Your task to perform on an android device: Go to Maps Image 0: 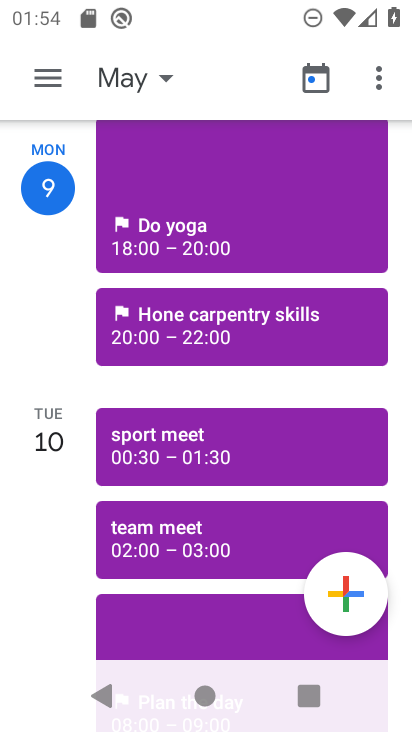
Step 0: press home button
Your task to perform on an android device: Go to Maps Image 1: 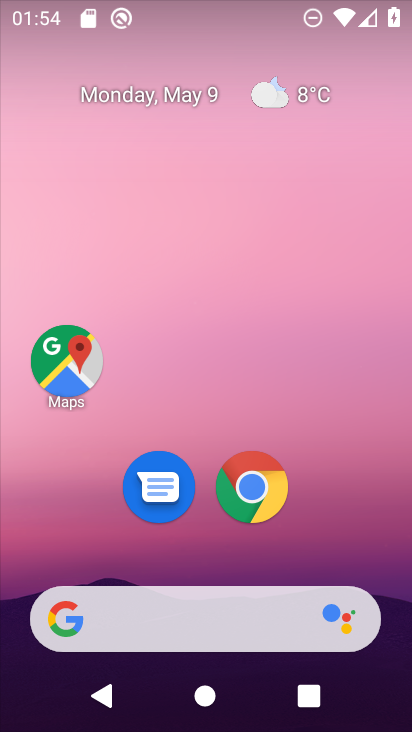
Step 1: click (47, 355)
Your task to perform on an android device: Go to Maps Image 2: 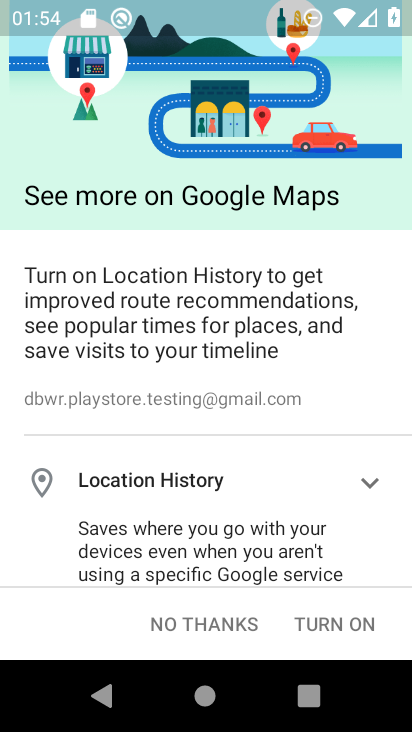
Step 2: click (55, 366)
Your task to perform on an android device: Go to Maps Image 3: 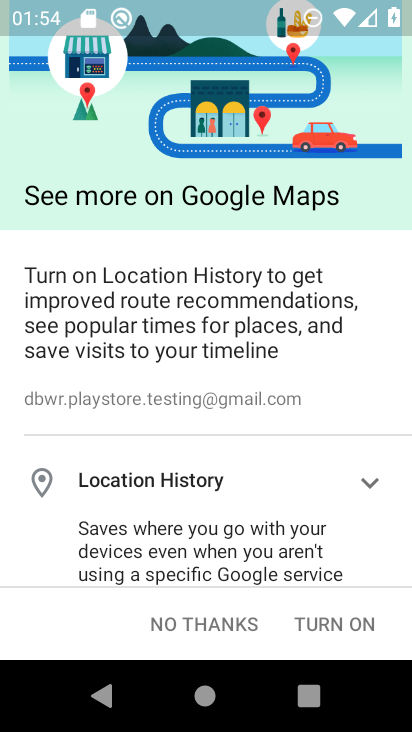
Step 3: click (244, 623)
Your task to perform on an android device: Go to Maps Image 4: 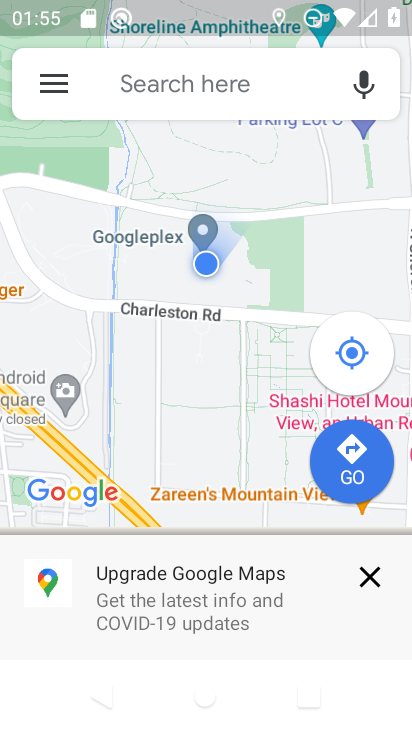
Step 4: click (372, 581)
Your task to perform on an android device: Go to Maps Image 5: 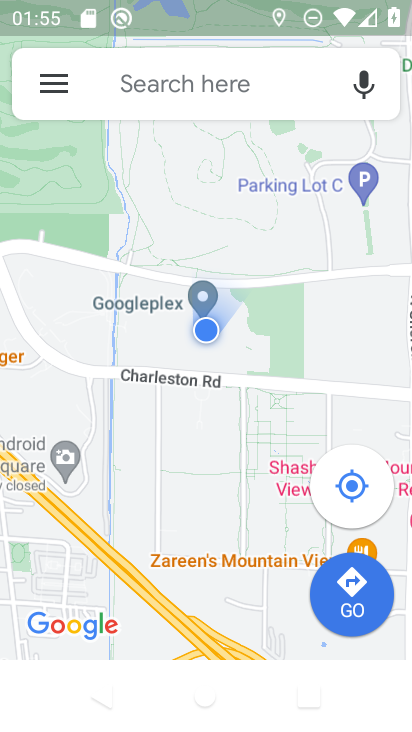
Step 5: task complete